Your task to perform on an android device: turn off picture-in-picture Image 0: 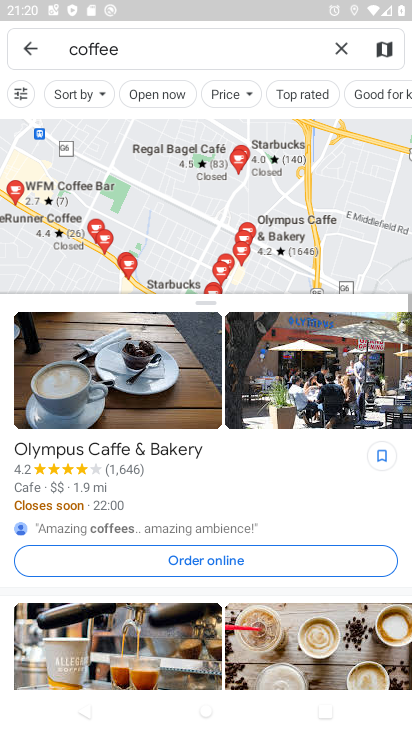
Step 0: drag from (239, 696) to (243, 311)
Your task to perform on an android device: turn off picture-in-picture Image 1: 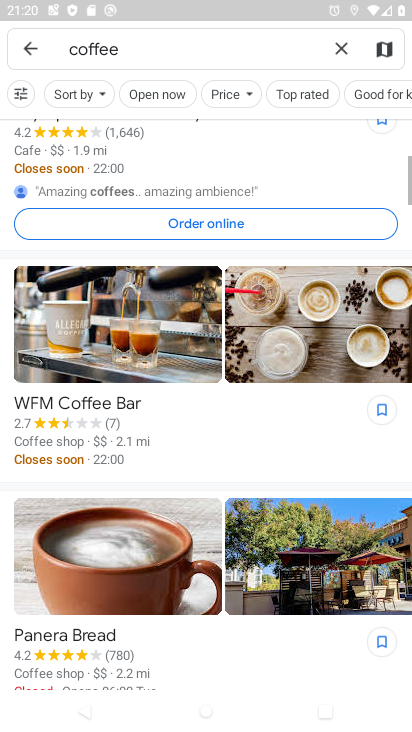
Step 1: press home button
Your task to perform on an android device: turn off picture-in-picture Image 2: 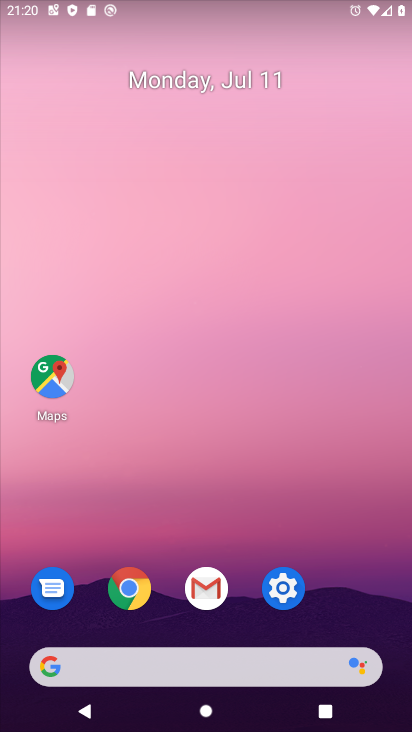
Step 2: drag from (240, 695) to (243, 290)
Your task to perform on an android device: turn off picture-in-picture Image 3: 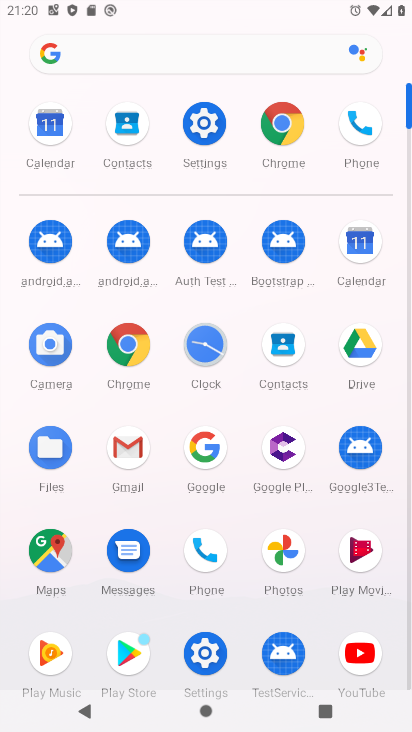
Step 3: click (355, 649)
Your task to perform on an android device: turn off picture-in-picture Image 4: 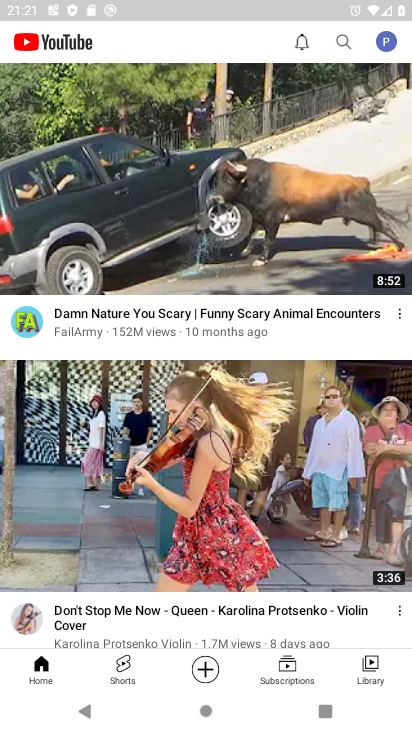
Step 4: click (384, 51)
Your task to perform on an android device: turn off picture-in-picture Image 5: 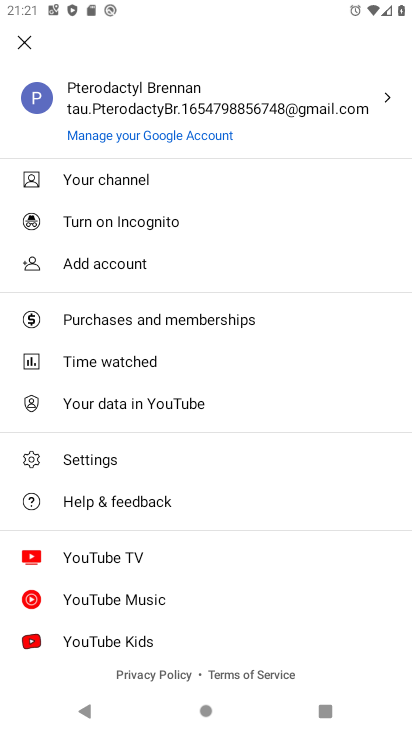
Step 5: click (98, 458)
Your task to perform on an android device: turn off picture-in-picture Image 6: 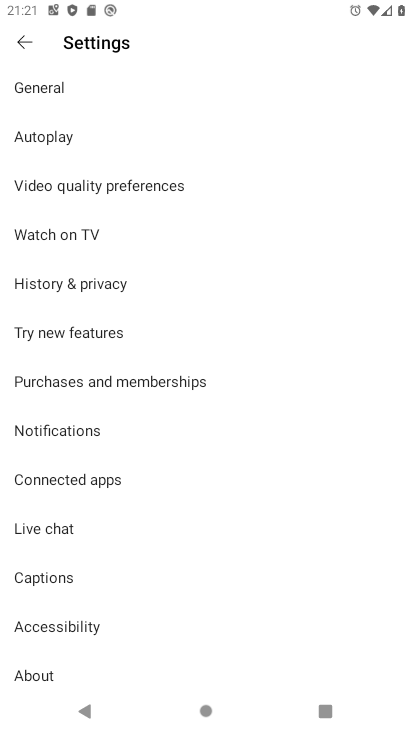
Step 6: click (62, 92)
Your task to perform on an android device: turn off picture-in-picture Image 7: 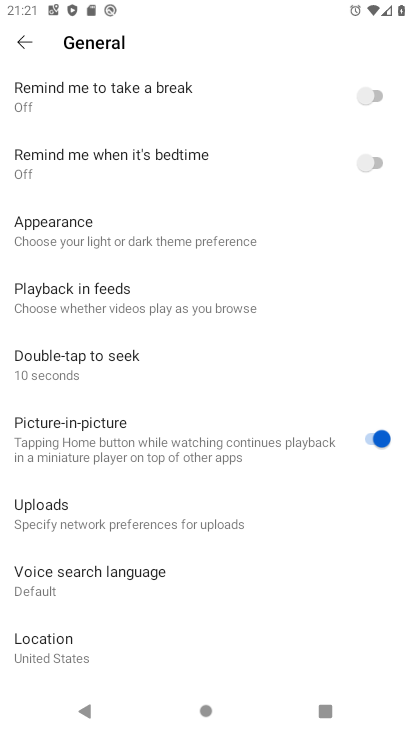
Step 7: click (374, 441)
Your task to perform on an android device: turn off picture-in-picture Image 8: 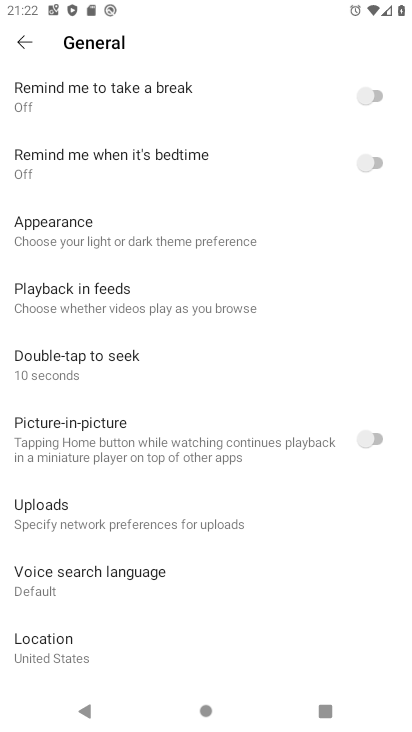
Step 8: task complete